Your task to perform on an android device: uninstall "Spotify" Image 0: 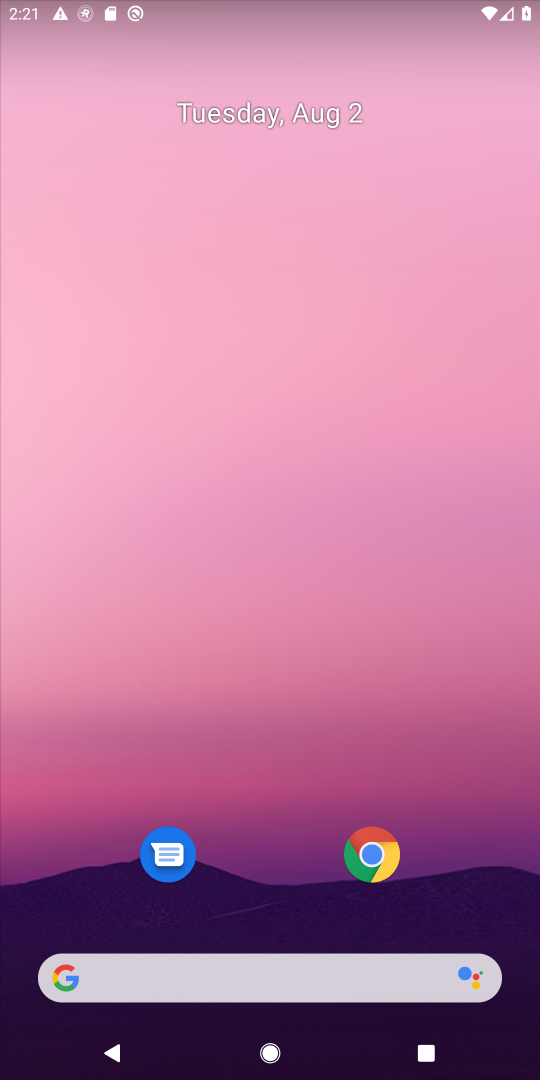
Step 0: drag from (304, 1070) to (280, 281)
Your task to perform on an android device: uninstall "Spotify" Image 1: 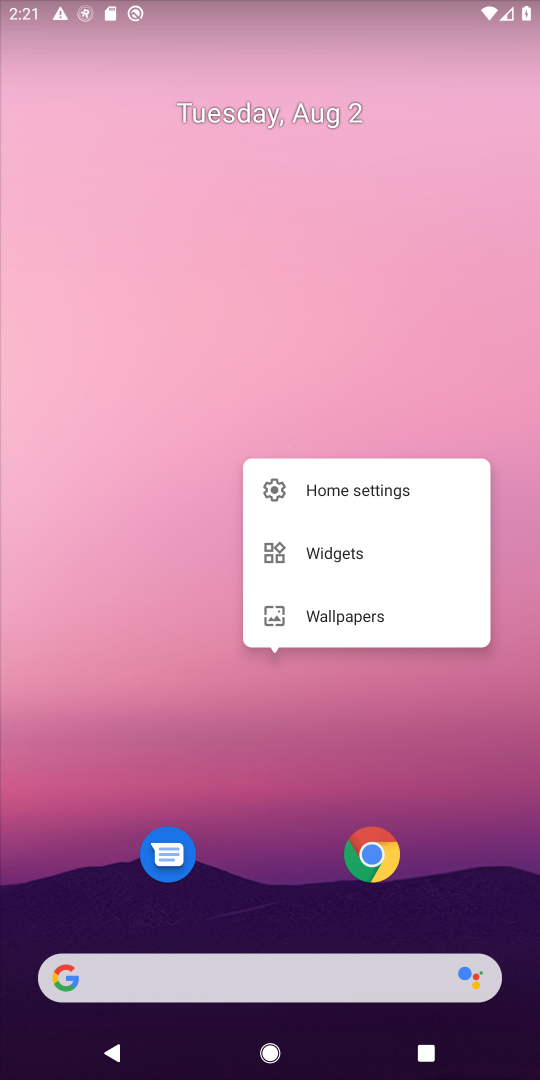
Step 1: click (207, 737)
Your task to perform on an android device: uninstall "Spotify" Image 2: 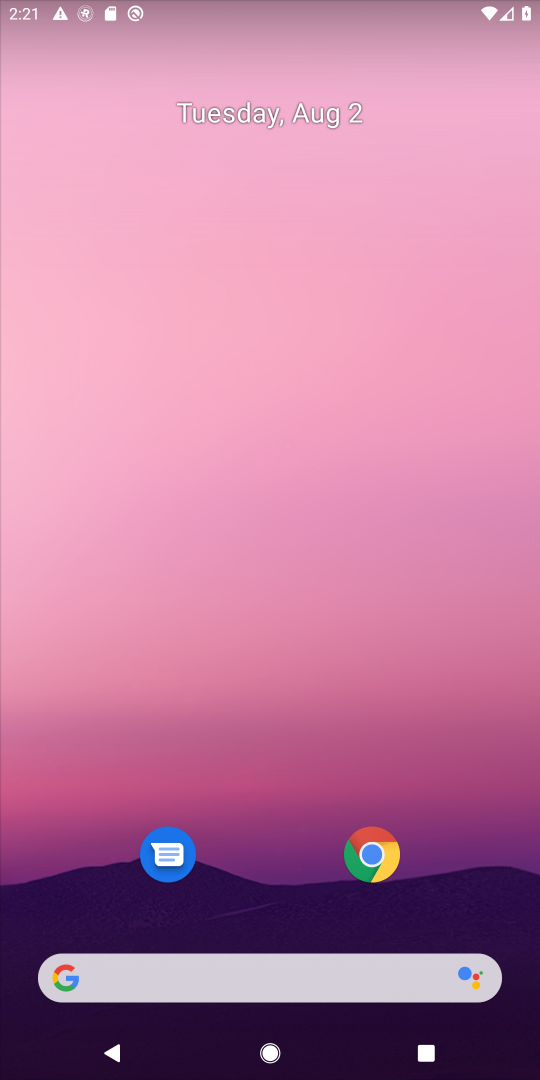
Step 2: drag from (313, 1004) to (301, 128)
Your task to perform on an android device: uninstall "Spotify" Image 3: 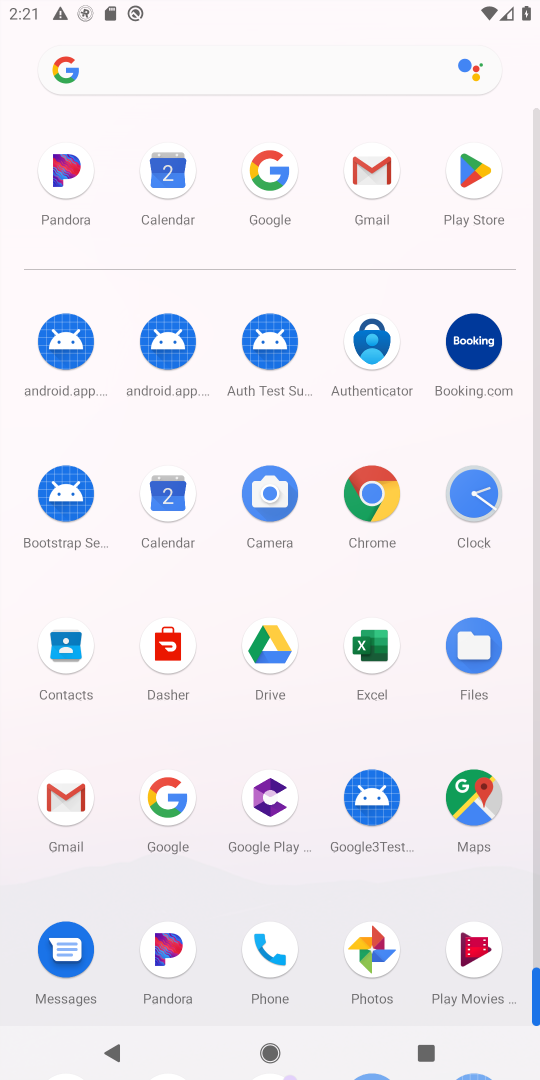
Step 3: click (472, 173)
Your task to perform on an android device: uninstall "Spotify" Image 4: 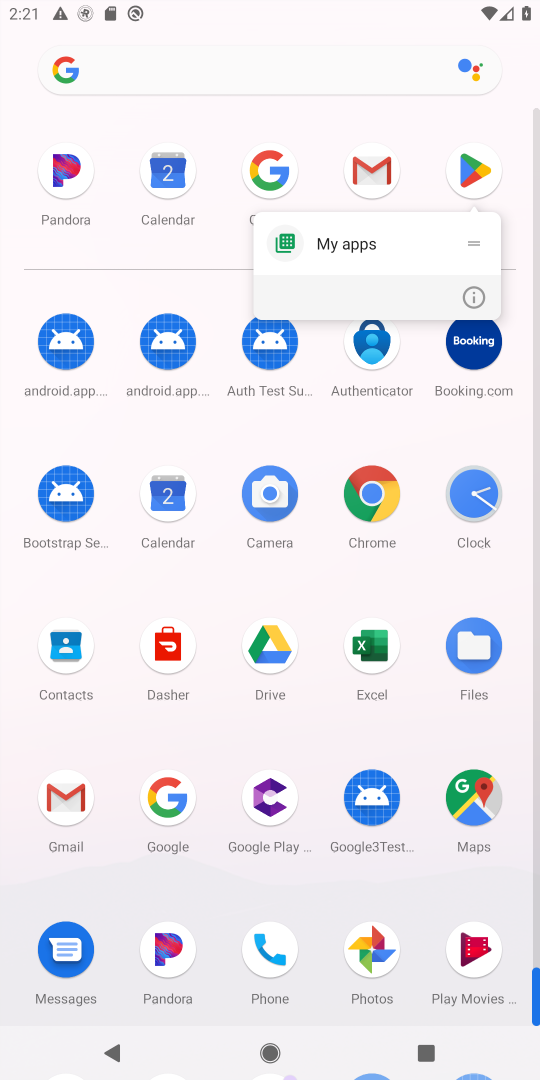
Step 4: click (472, 162)
Your task to perform on an android device: uninstall "Spotify" Image 5: 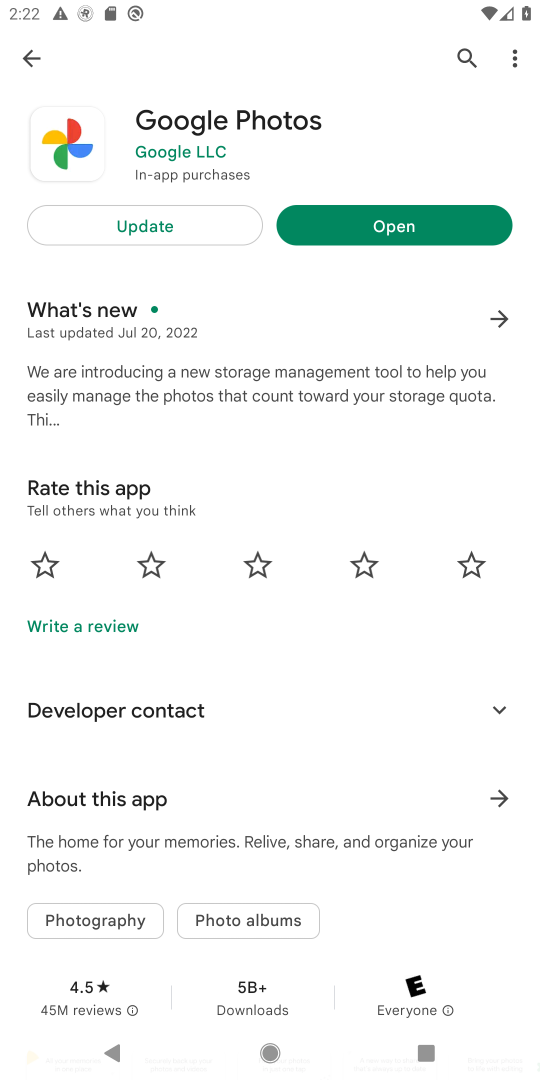
Step 5: click (467, 50)
Your task to perform on an android device: uninstall "Spotify" Image 6: 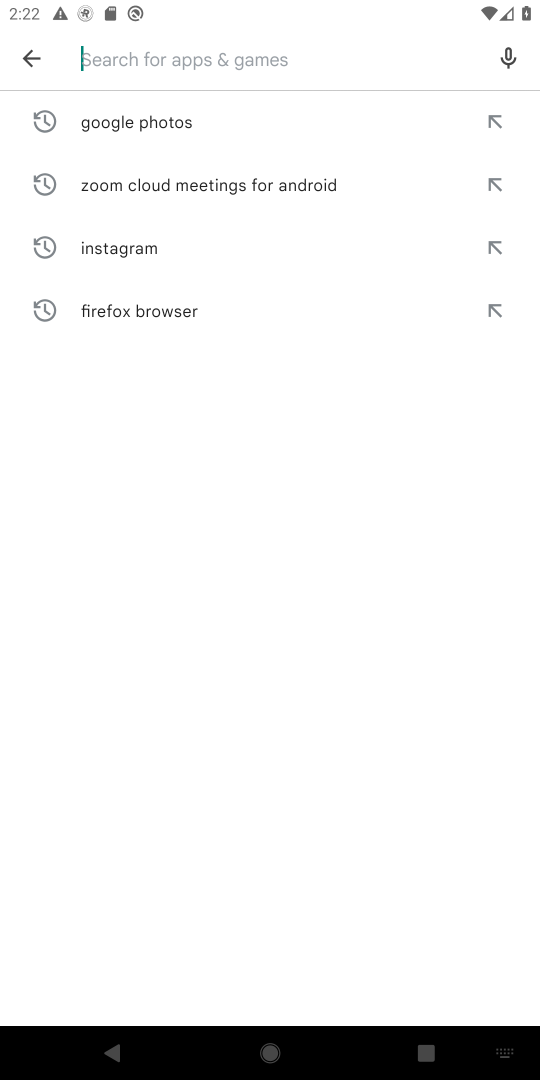
Step 6: type "Spotify"
Your task to perform on an android device: uninstall "Spotify" Image 7: 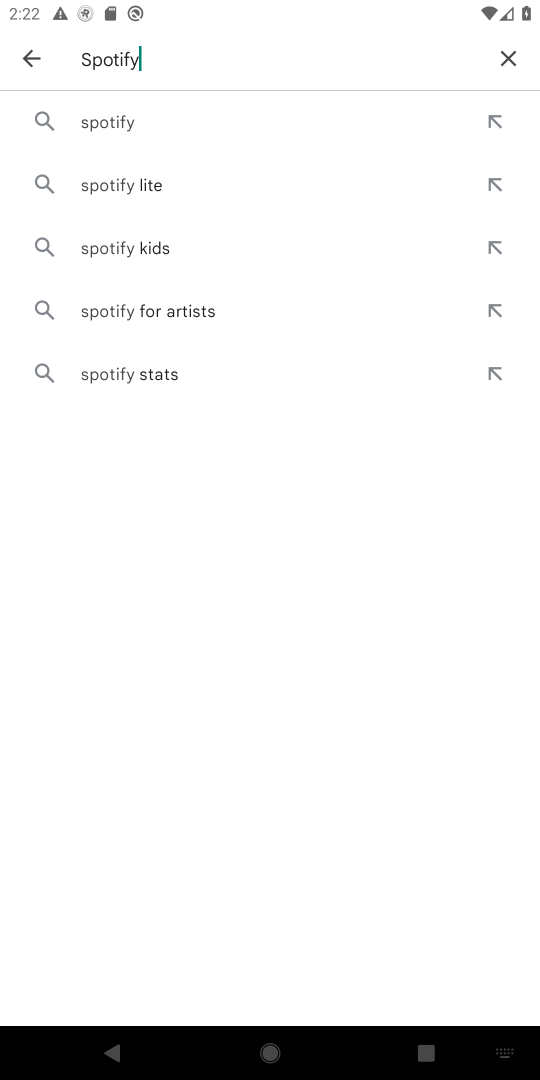
Step 7: type ""
Your task to perform on an android device: uninstall "Spotify" Image 8: 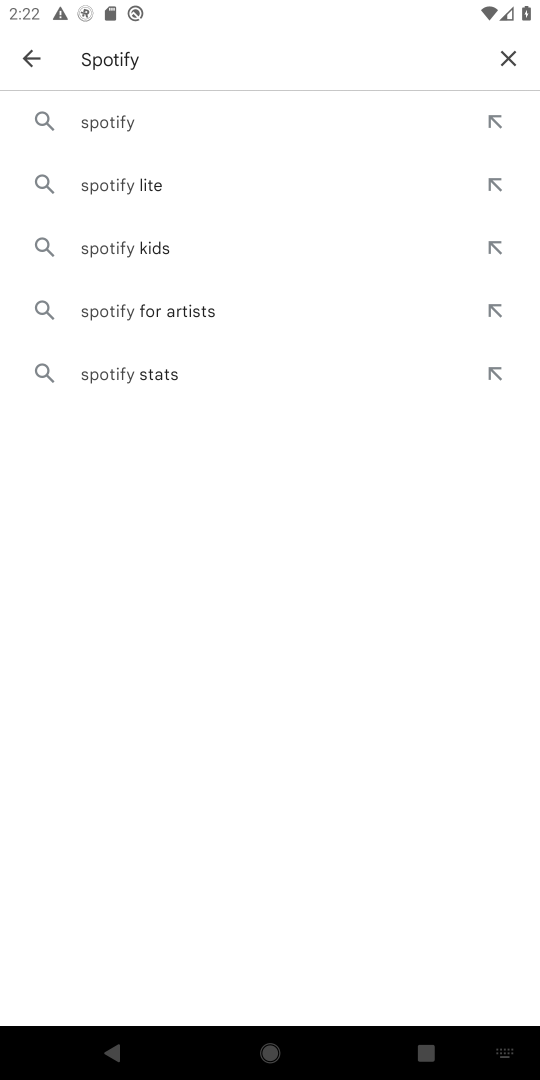
Step 8: click (111, 116)
Your task to perform on an android device: uninstall "Spotify" Image 9: 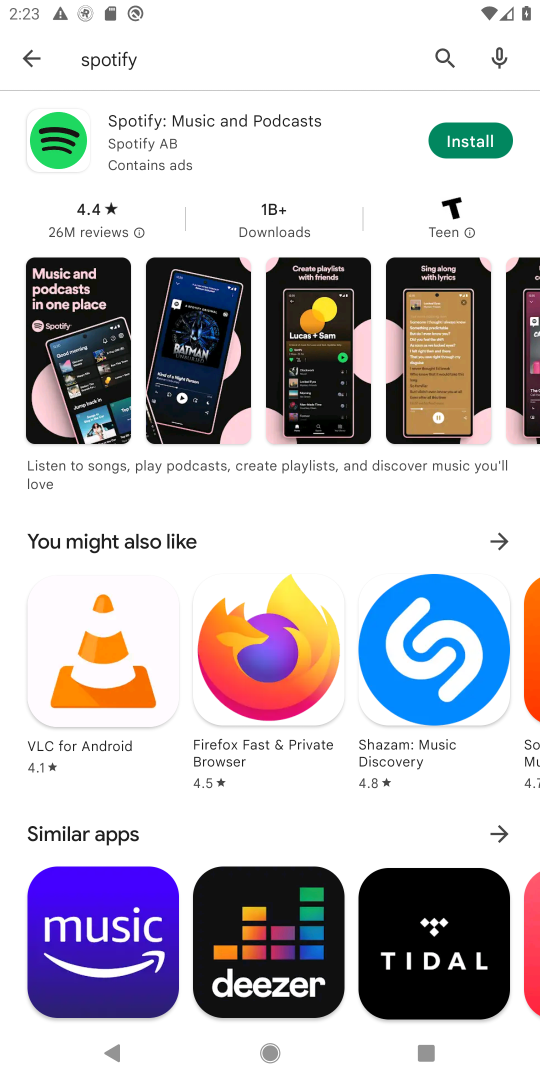
Step 9: click (185, 128)
Your task to perform on an android device: uninstall "Spotify" Image 10: 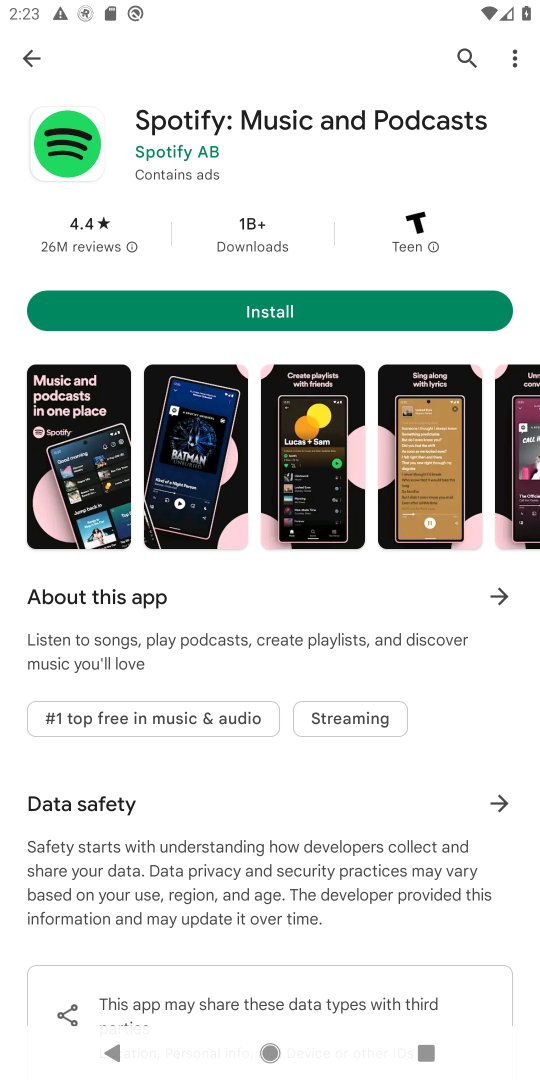
Step 10: task complete